Your task to perform on an android device: Go to internet settings Image 0: 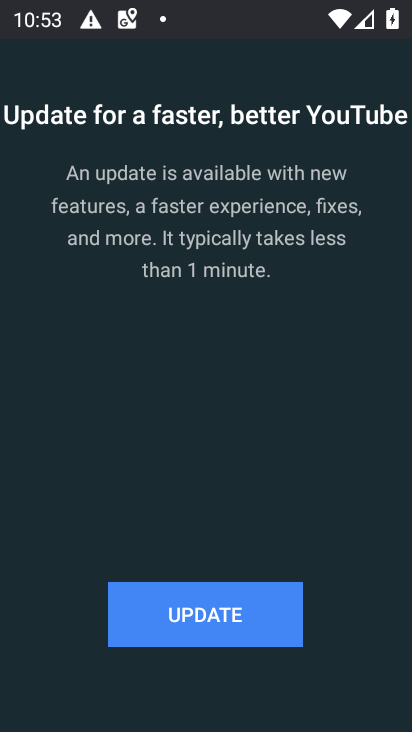
Step 0: press home button
Your task to perform on an android device: Go to internet settings Image 1: 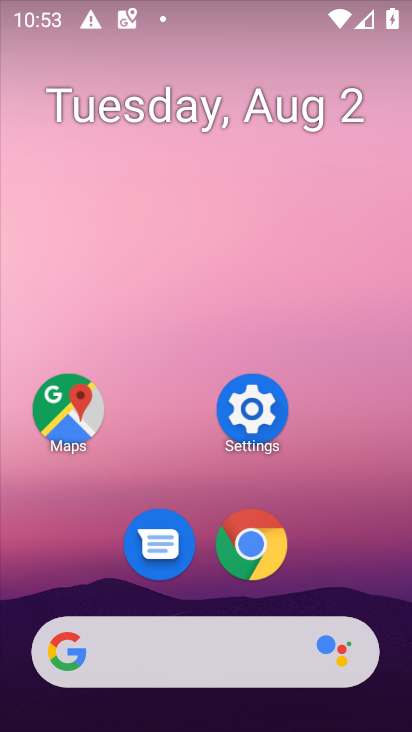
Step 1: click (254, 416)
Your task to perform on an android device: Go to internet settings Image 2: 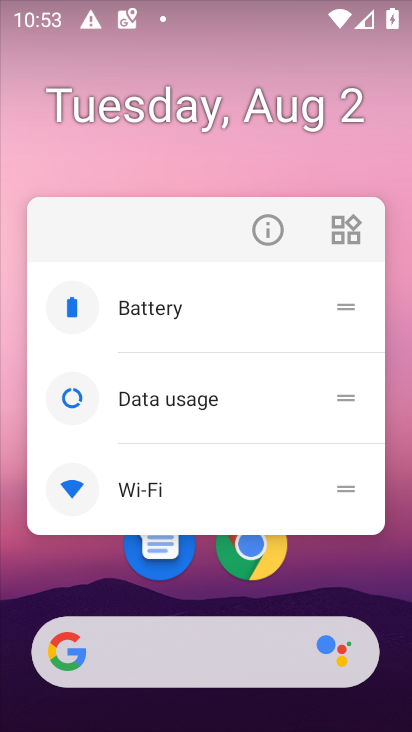
Step 2: click (347, 561)
Your task to perform on an android device: Go to internet settings Image 3: 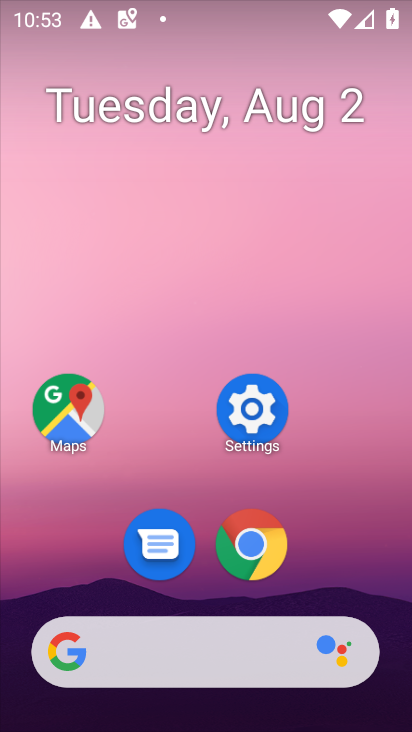
Step 3: click (255, 417)
Your task to perform on an android device: Go to internet settings Image 4: 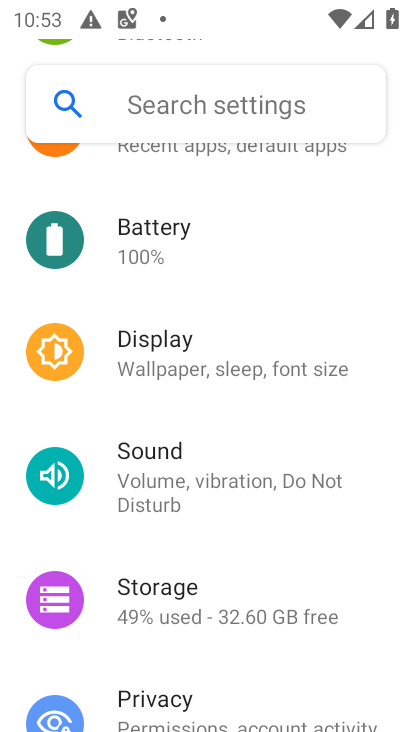
Step 4: drag from (279, 175) to (290, 615)
Your task to perform on an android device: Go to internet settings Image 5: 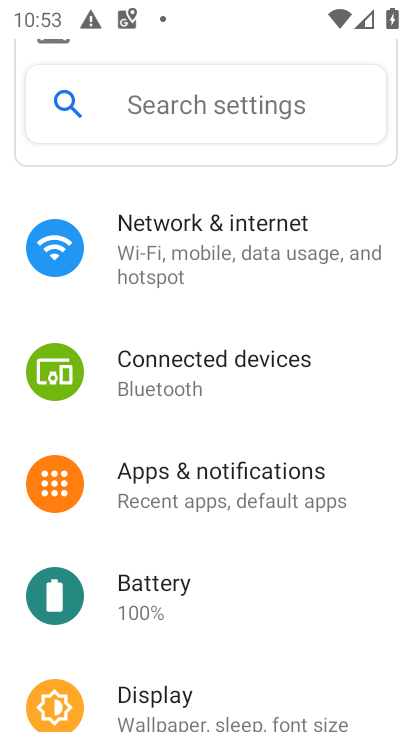
Step 5: click (241, 237)
Your task to perform on an android device: Go to internet settings Image 6: 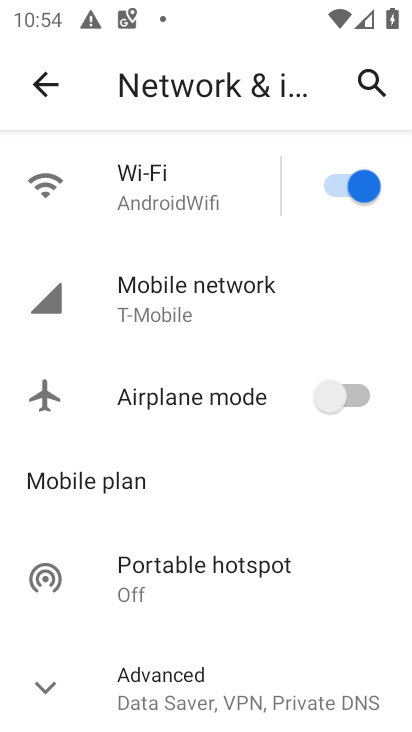
Step 6: task complete